Your task to perform on an android device: Open display settings Image 0: 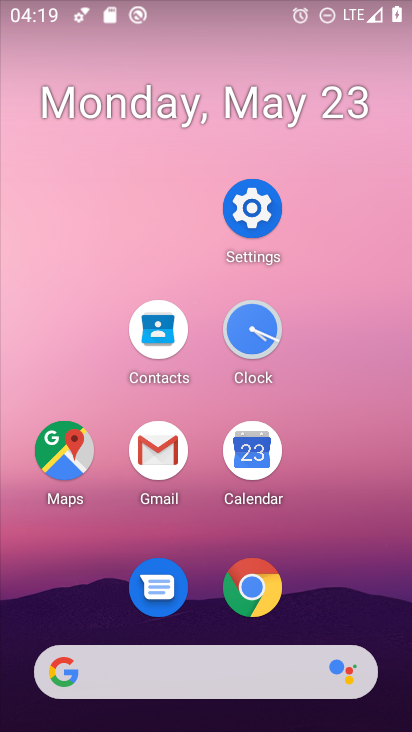
Step 0: click (254, 208)
Your task to perform on an android device: Open display settings Image 1: 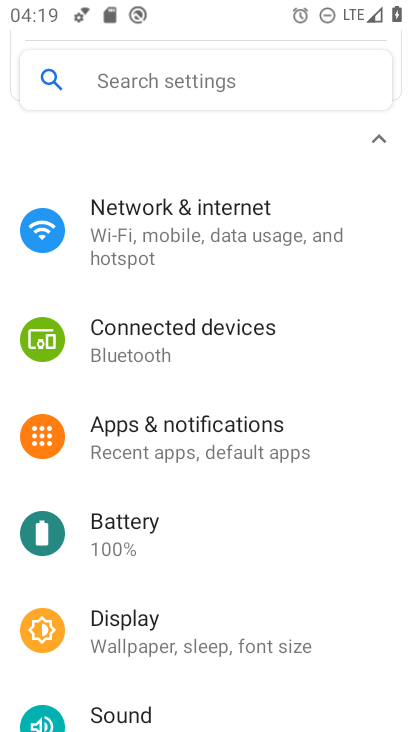
Step 1: click (157, 660)
Your task to perform on an android device: Open display settings Image 2: 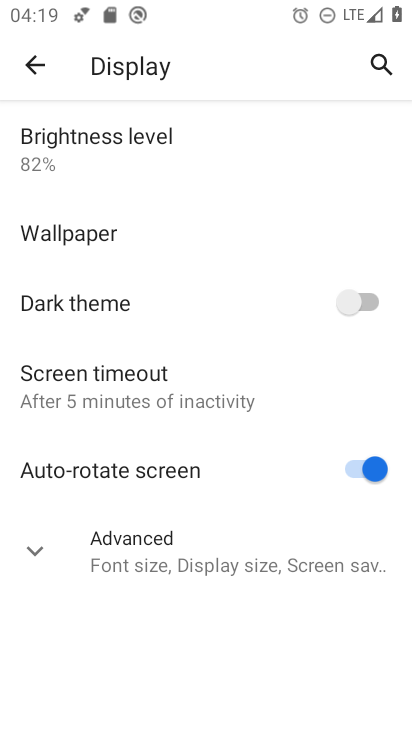
Step 2: task complete